Your task to perform on an android device: change timer sound Image 0: 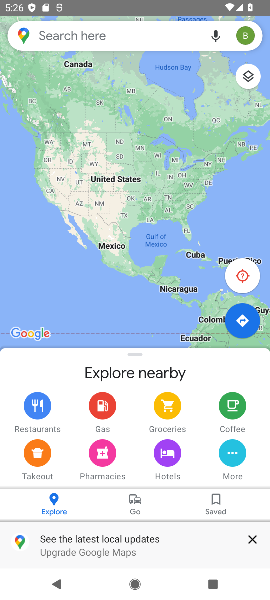
Step 0: press home button
Your task to perform on an android device: change timer sound Image 1: 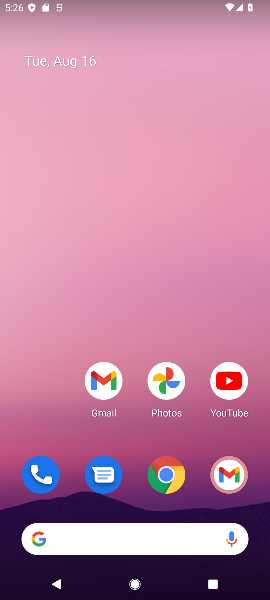
Step 1: drag from (232, 521) to (127, 40)
Your task to perform on an android device: change timer sound Image 2: 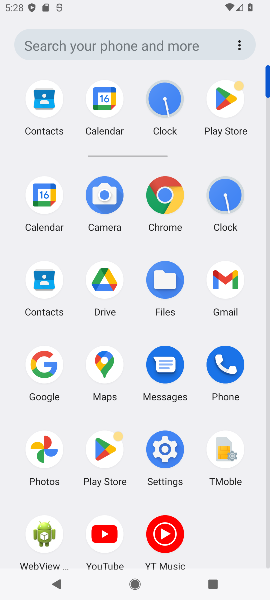
Step 2: click (222, 193)
Your task to perform on an android device: change timer sound Image 3: 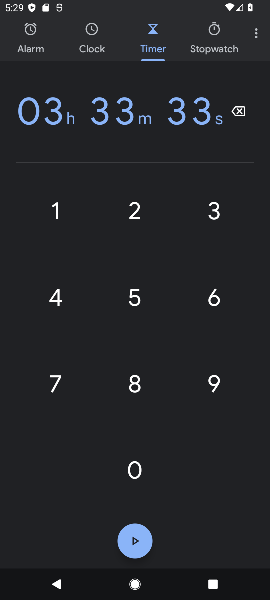
Step 3: click (251, 36)
Your task to perform on an android device: change timer sound Image 4: 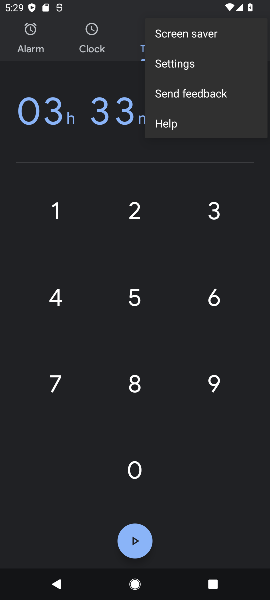
Step 4: click (193, 64)
Your task to perform on an android device: change timer sound Image 5: 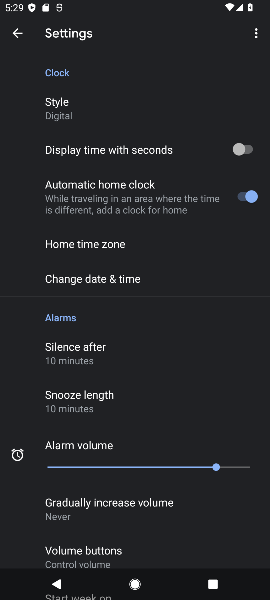
Step 5: drag from (87, 545) to (104, 104)
Your task to perform on an android device: change timer sound Image 6: 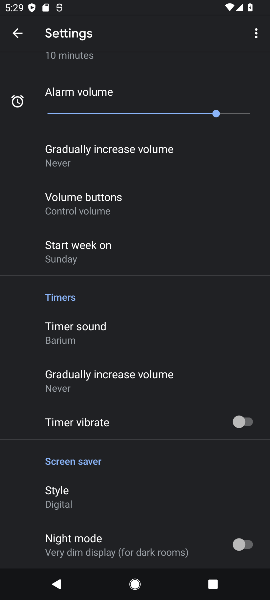
Step 6: drag from (88, 530) to (117, 123)
Your task to perform on an android device: change timer sound Image 7: 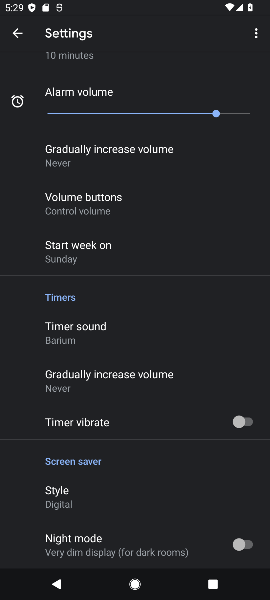
Step 7: click (82, 326)
Your task to perform on an android device: change timer sound Image 8: 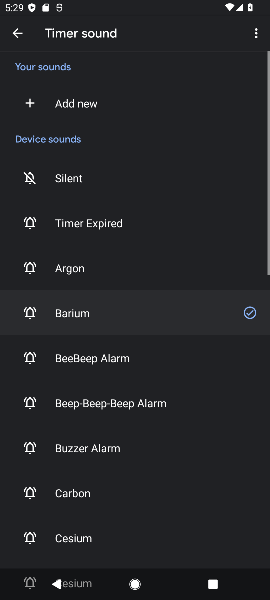
Step 8: click (99, 257)
Your task to perform on an android device: change timer sound Image 9: 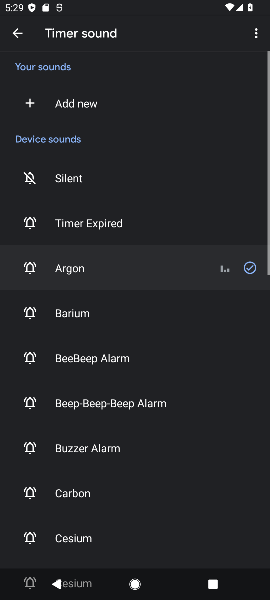
Step 9: task complete